Your task to perform on an android device: Open calendar and show me the third week of next month Image 0: 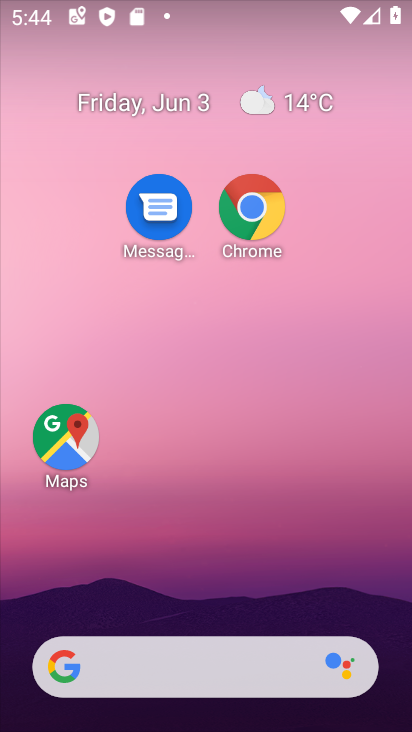
Step 0: drag from (230, 593) to (301, 239)
Your task to perform on an android device: Open calendar and show me the third week of next month Image 1: 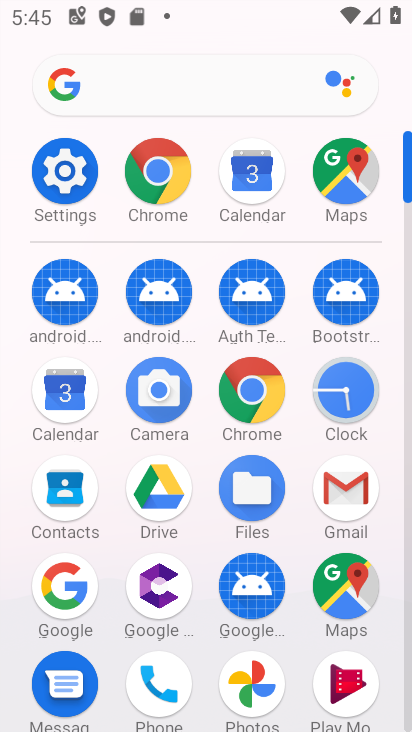
Step 1: click (87, 408)
Your task to perform on an android device: Open calendar and show me the third week of next month Image 2: 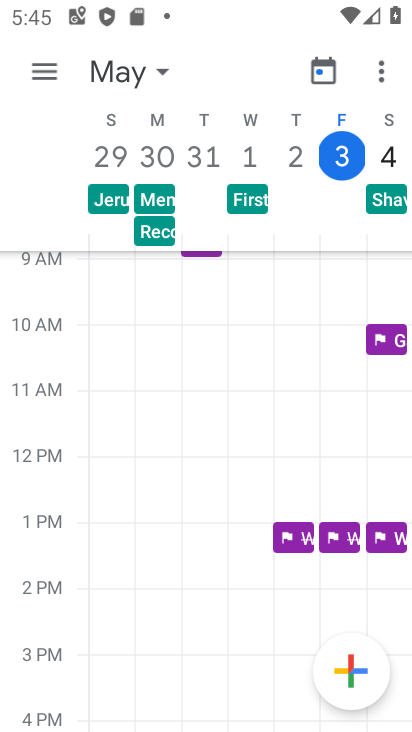
Step 2: click (75, 417)
Your task to perform on an android device: Open calendar and show me the third week of next month Image 3: 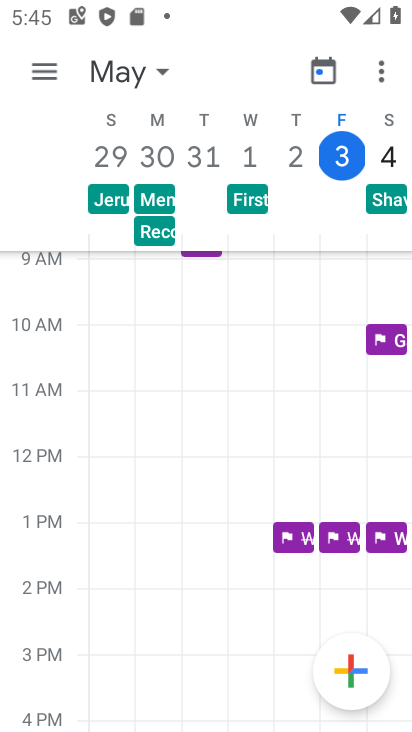
Step 3: click (125, 76)
Your task to perform on an android device: Open calendar and show me the third week of next month Image 4: 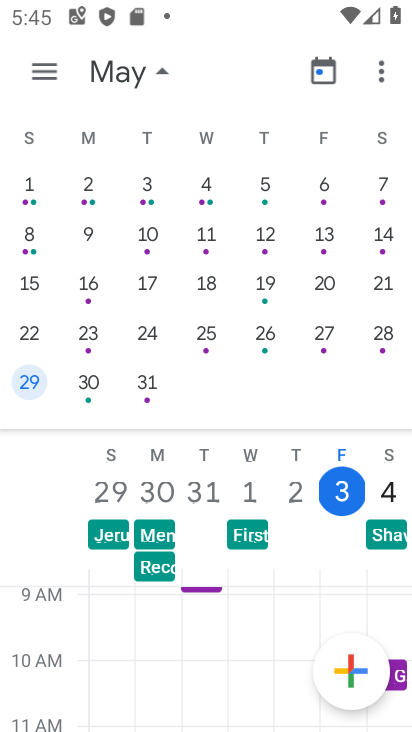
Step 4: drag from (349, 258) to (19, 275)
Your task to perform on an android device: Open calendar and show me the third week of next month Image 5: 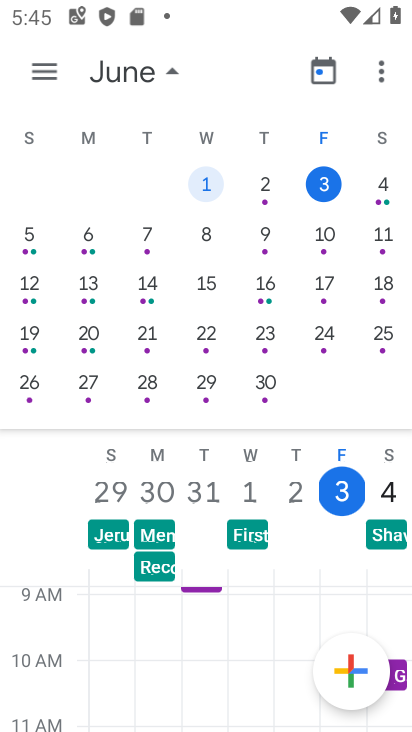
Step 5: drag from (317, 318) to (10, 303)
Your task to perform on an android device: Open calendar and show me the third week of next month Image 6: 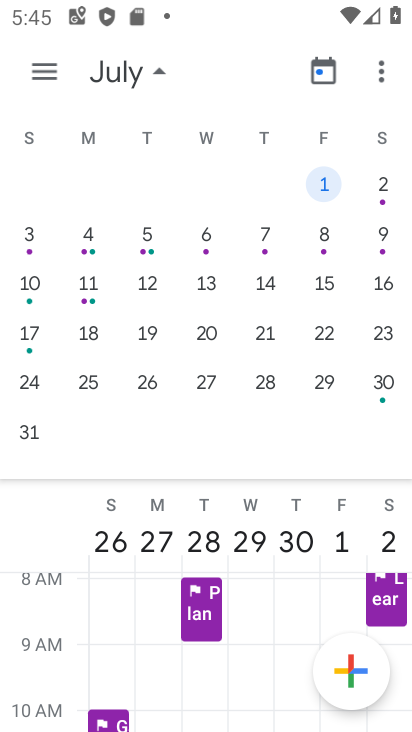
Step 6: click (35, 339)
Your task to perform on an android device: Open calendar and show me the third week of next month Image 7: 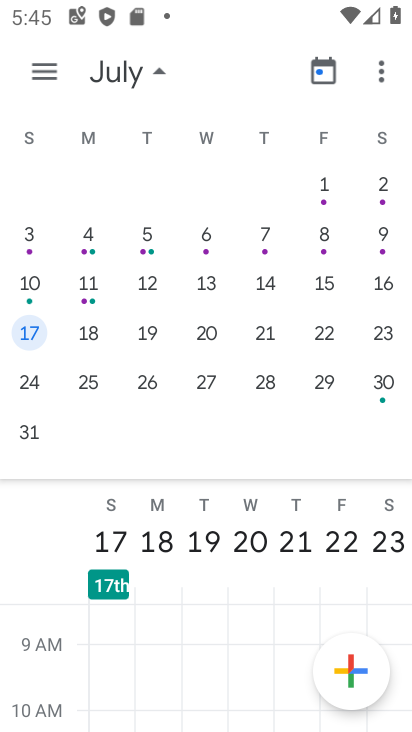
Step 7: click (30, 335)
Your task to perform on an android device: Open calendar and show me the third week of next month Image 8: 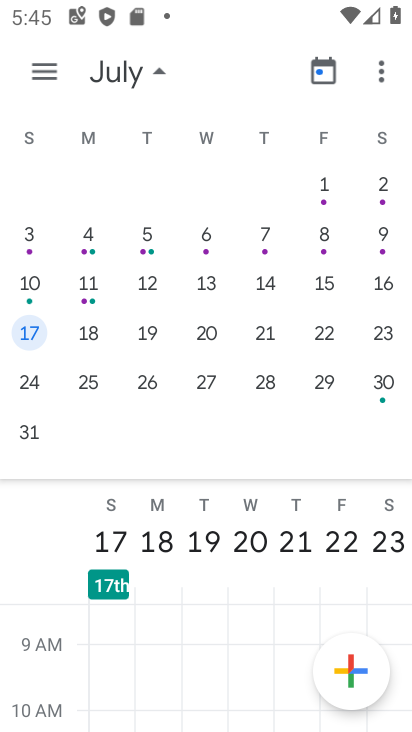
Step 8: task complete